Your task to perform on an android device: open a bookmark in the chrome app Image 0: 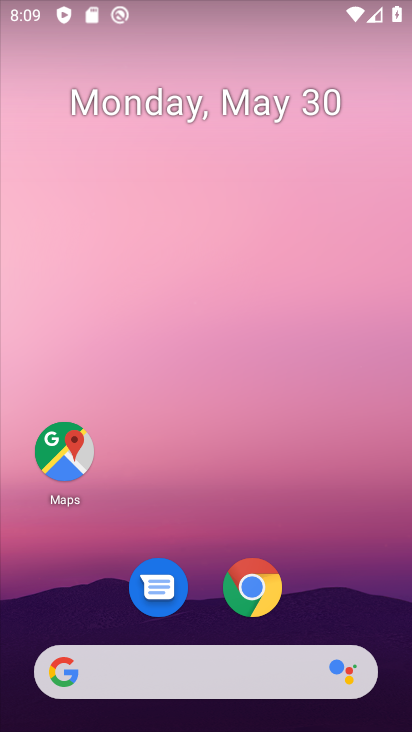
Step 0: click (248, 593)
Your task to perform on an android device: open a bookmark in the chrome app Image 1: 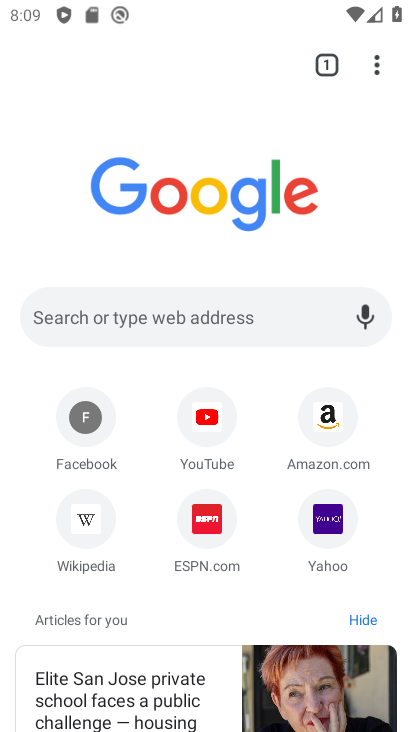
Step 1: click (375, 62)
Your task to perform on an android device: open a bookmark in the chrome app Image 2: 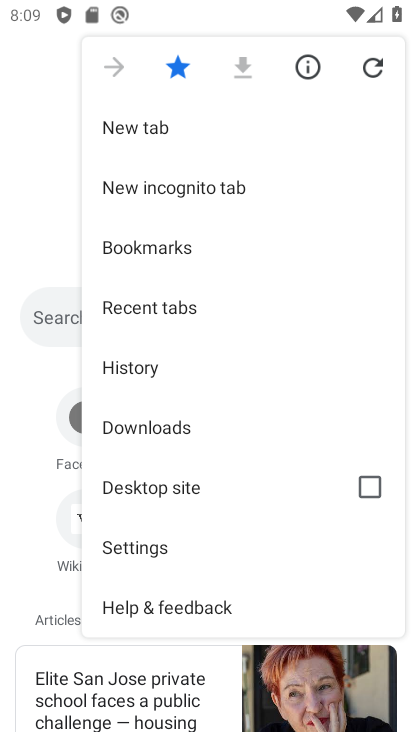
Step 2: click (188, 251)
Your task to perform on an android device: open a bookmark in the chrome app Image 3: 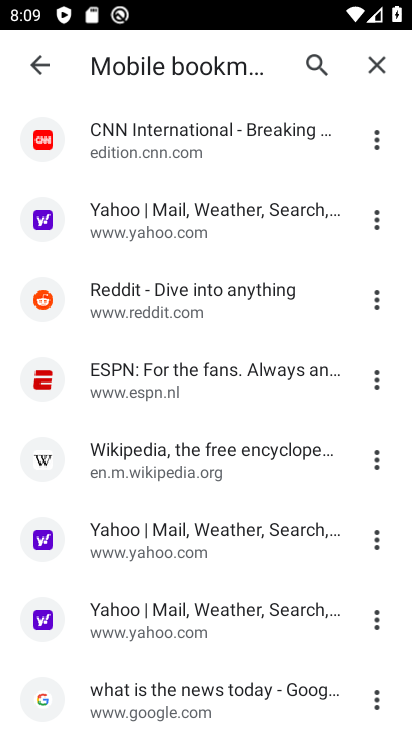
Step 3: click (188, 251)
Your task to perform on an android device: open a bookmark in the chrome app Image 4: 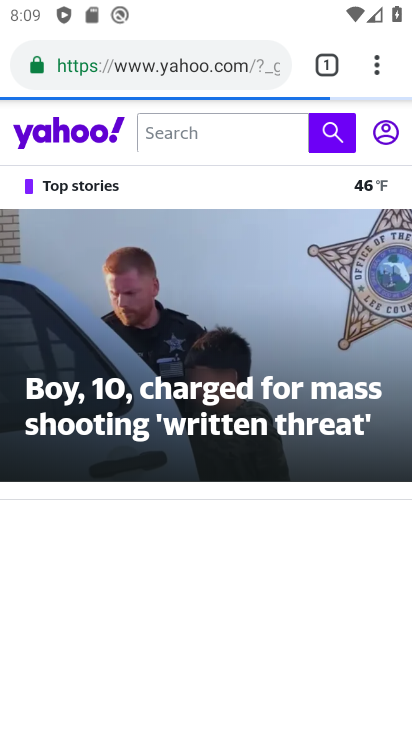
Step 4: task complete